Your task to perform on an android device: check google app version Image 0: 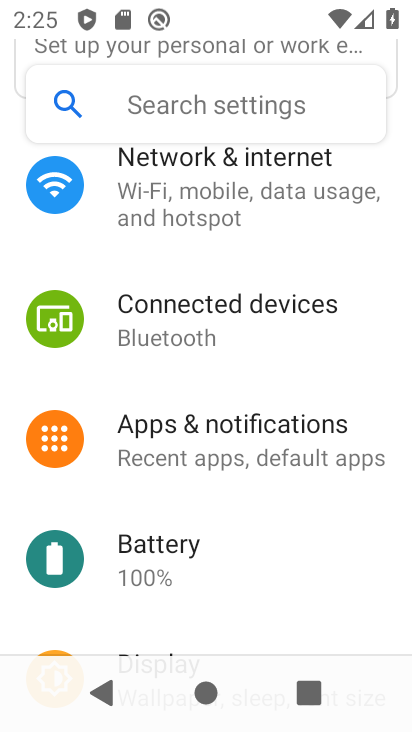
Step 0: press home button
Your task to perform on an android device: check google app version Image 1: 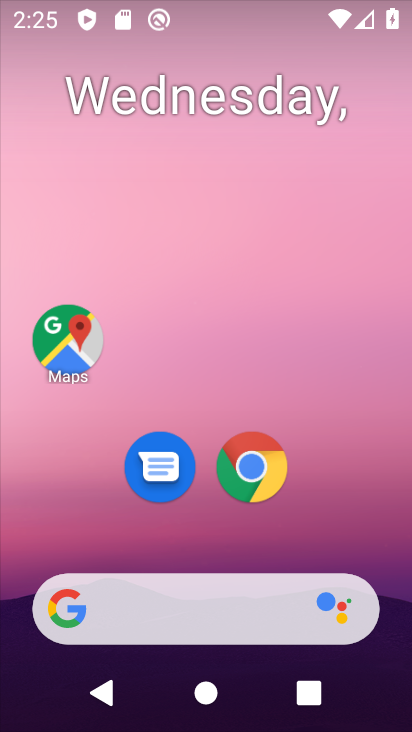
Step 1: drag from (314, 468) to (336, 213)
Your task to perform on an android device: check google app version Image 2: 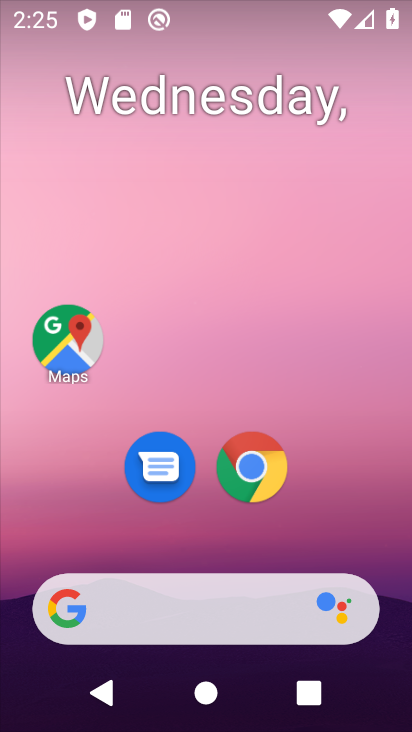
Step 2: drag from (310, 552) to (294, 104)
Your task to perform on an android device: check google app version Image 3: 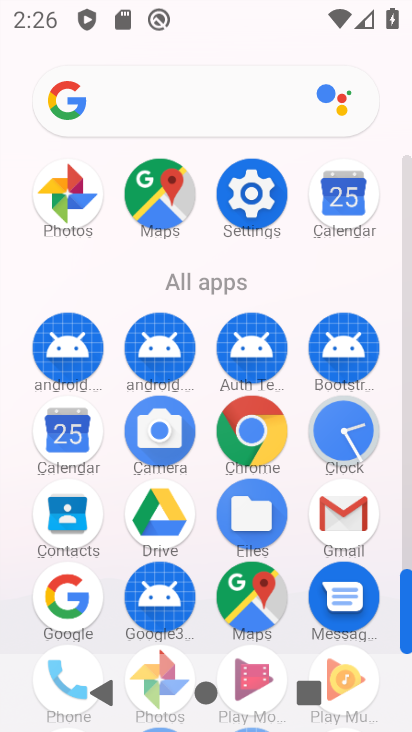
Step 3: drag from (293, 579) to (322, 249)
Your task to perform on an android device: check google app version Image 4: 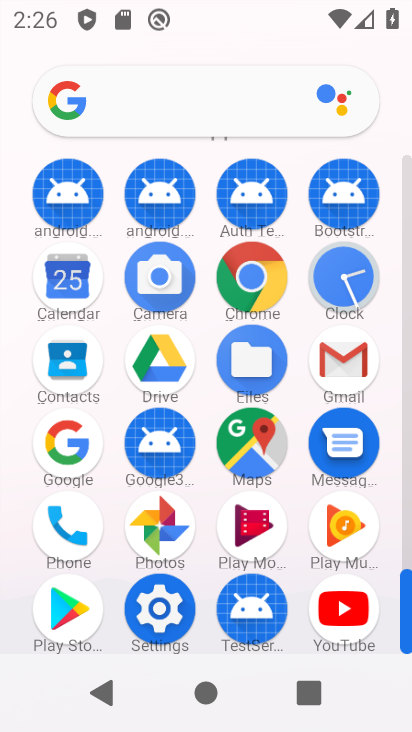
Step 4: click (54, 427)
Your task to perform on an android device: check google app version Image 5: 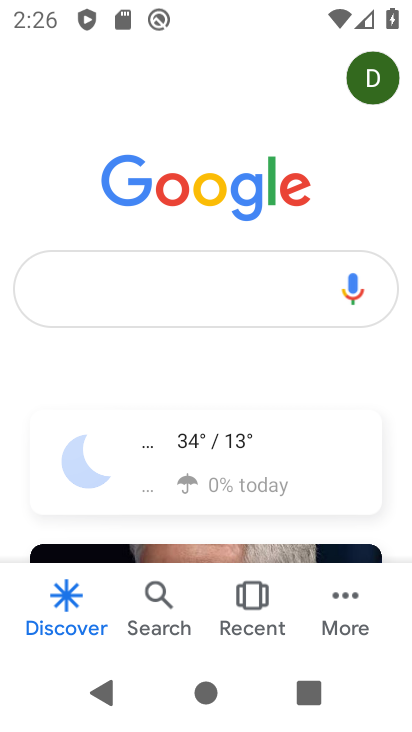
Step 5: click (349, 594)
Your task to perform on an android device: check google app version Image 6: 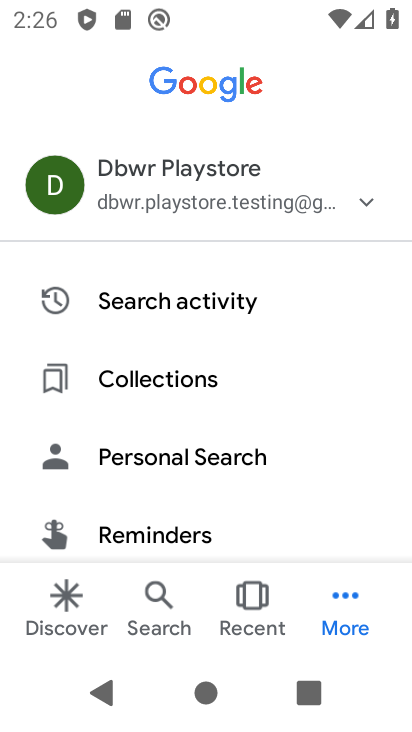
Step 6: drag from (168, 436) to (211, 179)
Your task to perform on an android device: check google app version Image 7: 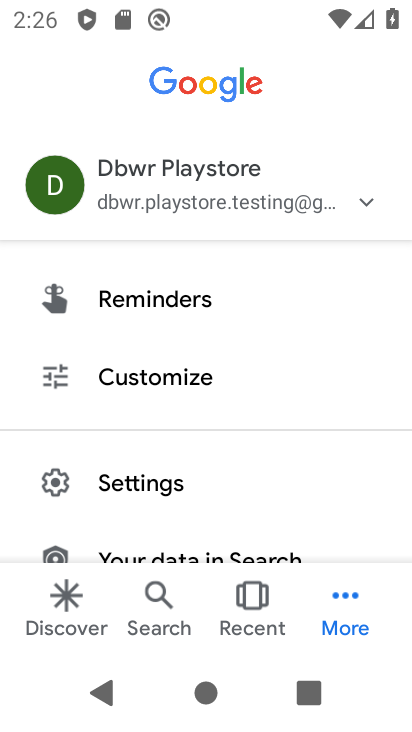
Step 7: click (131, 481)
Your task to perform on an android device: check google app version Image 8: 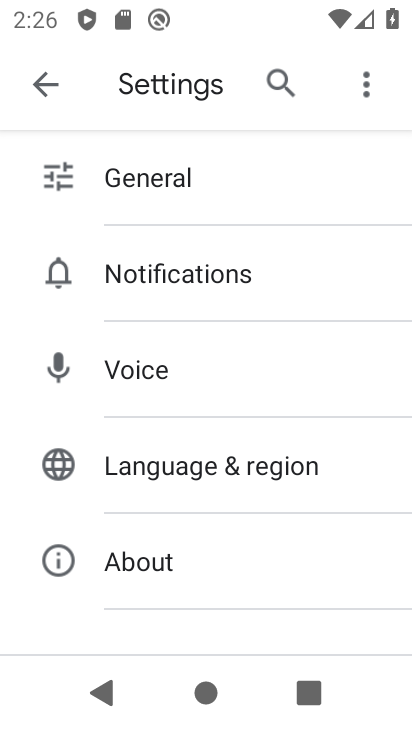
Step 8: click (246, 577)
Your task to perform on an android device: check google app version Image 9: 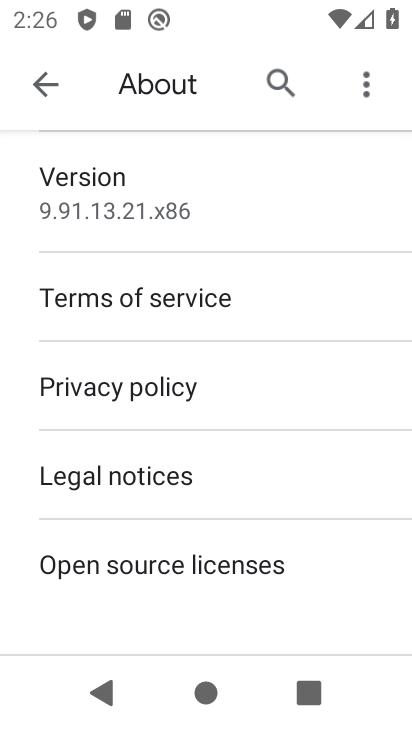
Step 9: task complete